Your task to perform on an android device: Open settings Image 0: 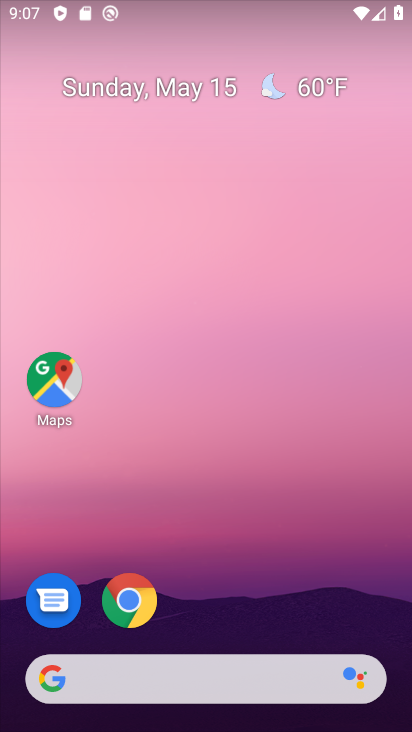
Step 0: drag from (173, 645) to (321, 135)
Your task to perform on an android device: Open settings Image 1: 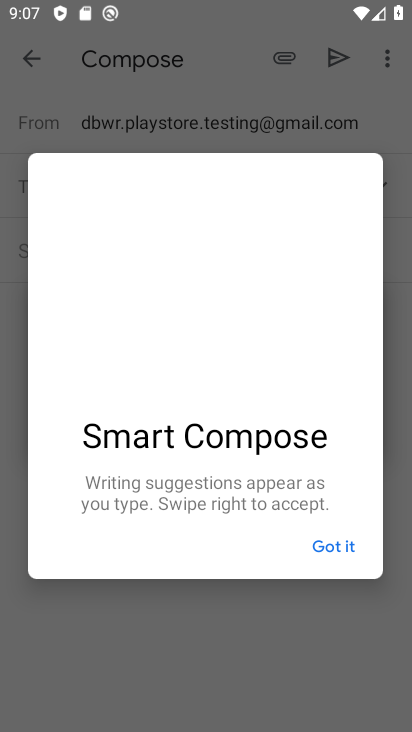
Step 1: press back button
Your task to perform on an android device: Open settings Image 2: 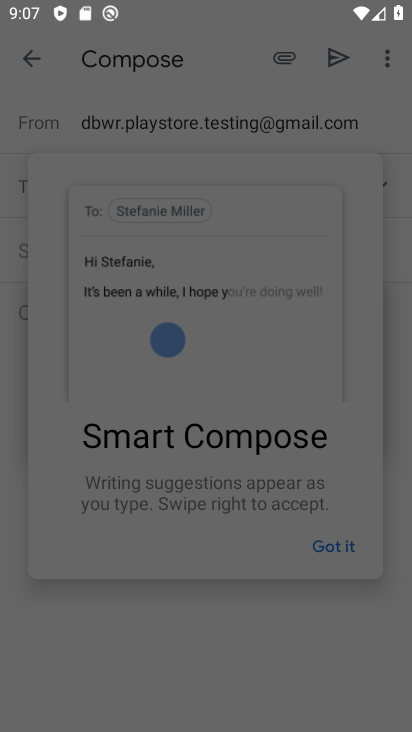
Step 2: press home button
Your task to perform on an android device: Open settings Image 3: 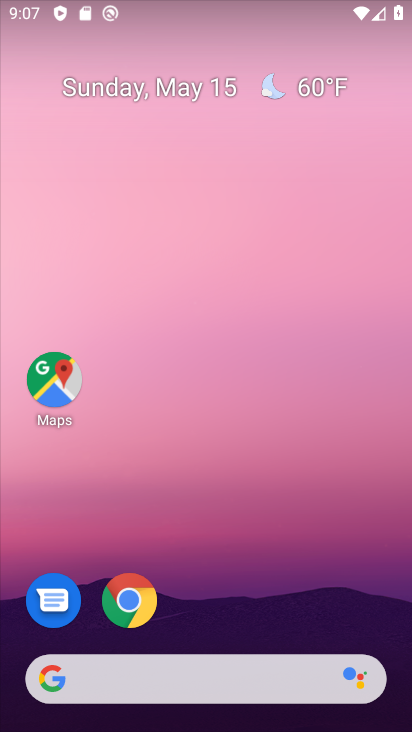
Step 3: drag from (247, 576) to (351, 128)
Your task to perform on an android device: Open settings Image 4: 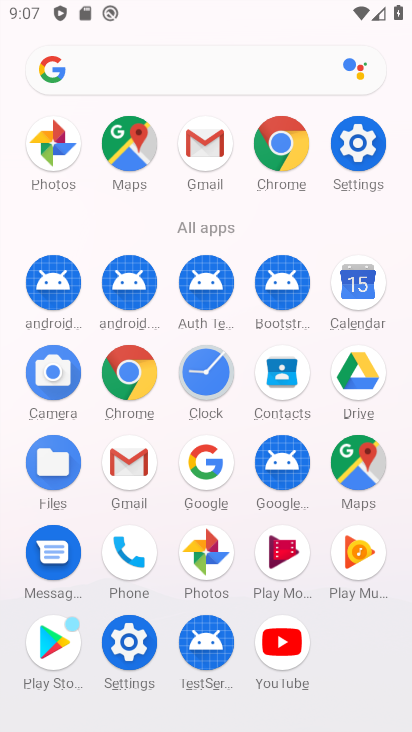
Step 4: drag from (142, 688) to (178, 547)
Your task to perform on an android device: Open settings Image 5: 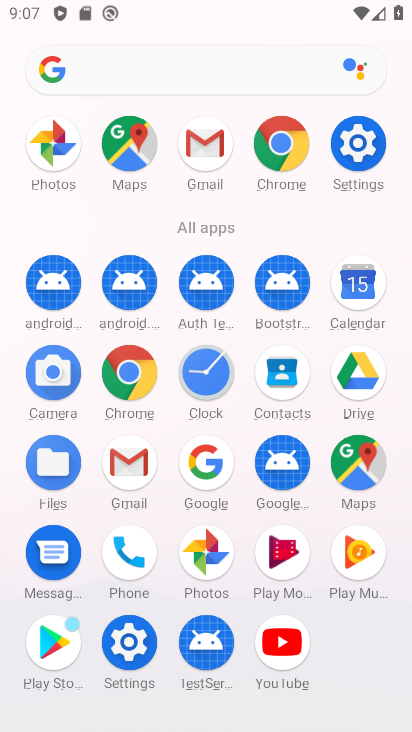
Step 5: click (122, 642)
Your task to perform on an android device: Open settings Image 6: 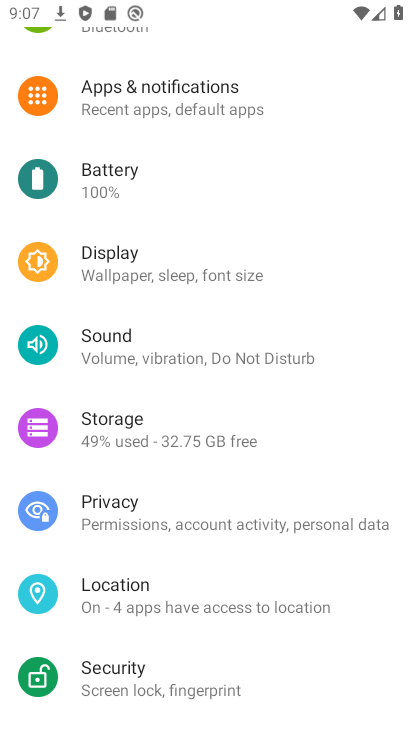
Step 6: click (257, 508)
Your task to perform on an android device: Open settings Image 7: 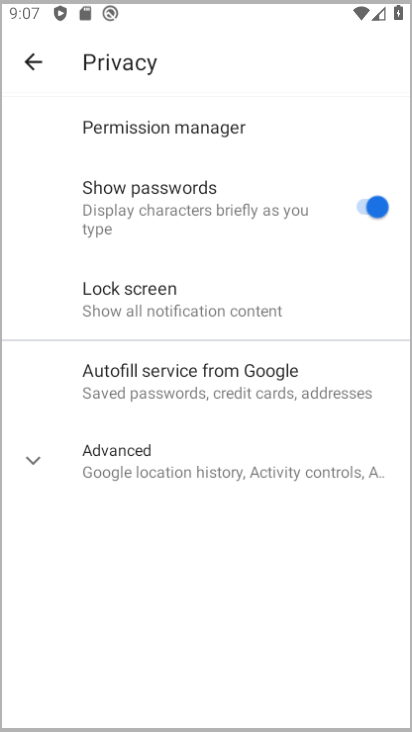
Step 7: task complete